Your task to perform on an android device: open app "Microsoft Authenticator" Image 0: 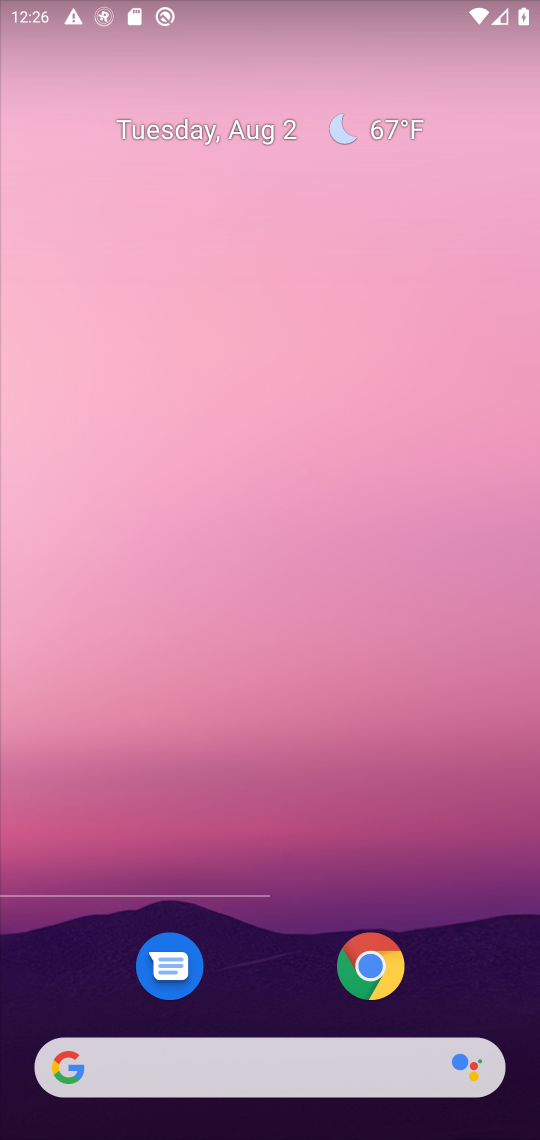
Step 0: press home button
Your task to perform on an android device: open app "Microsoft Authenticator" Image 1: 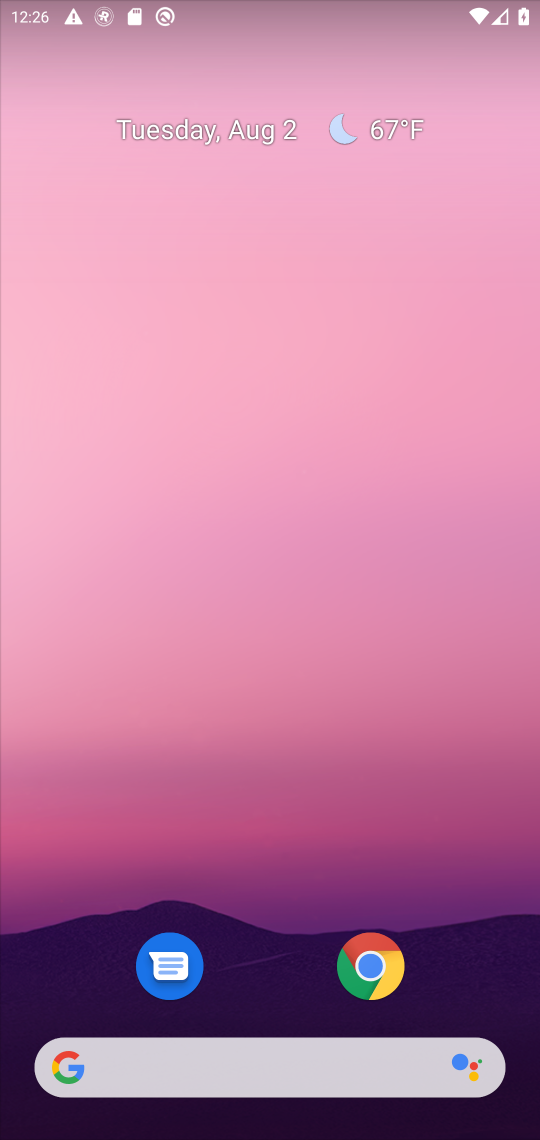
Step 1: drag from (261, 907) to (322, 67)
Your task to perform on an android device: open app "Microsoft Authenticator" Image 2: 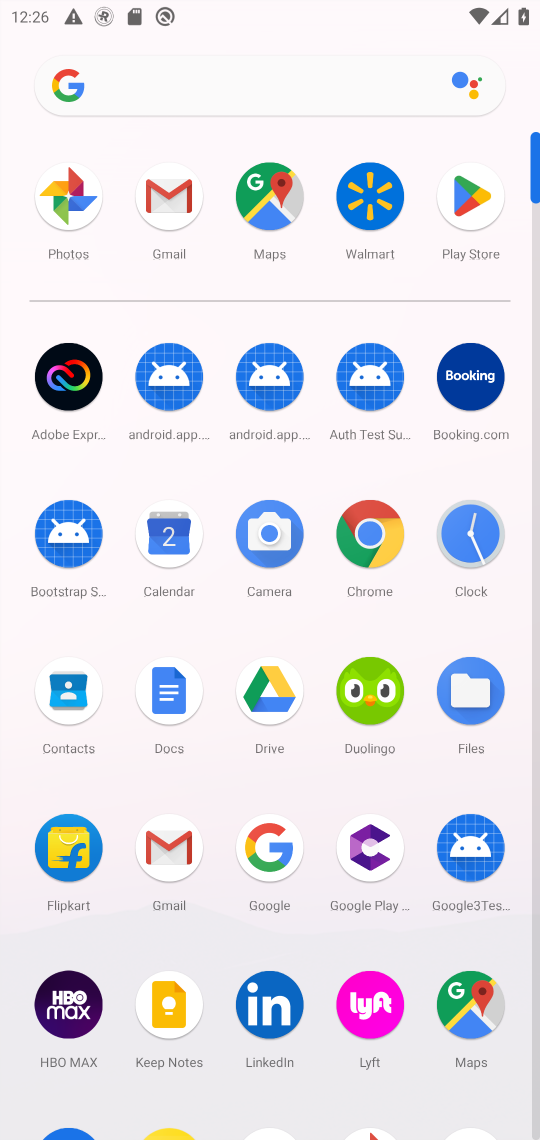
Step 2: click (470, 214)
Your task to perform on an android device: open app "Microsoft Authenticator" Image 3: 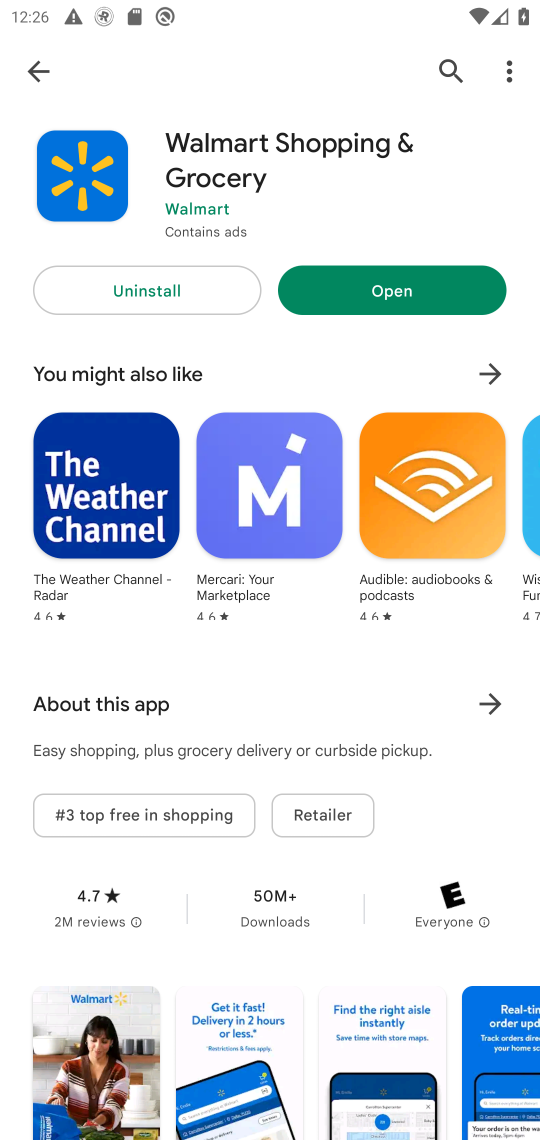
Step 3: click (447, 67)
Your task to perform on an android device: open app "Microsoft Authenticator" Image 4: 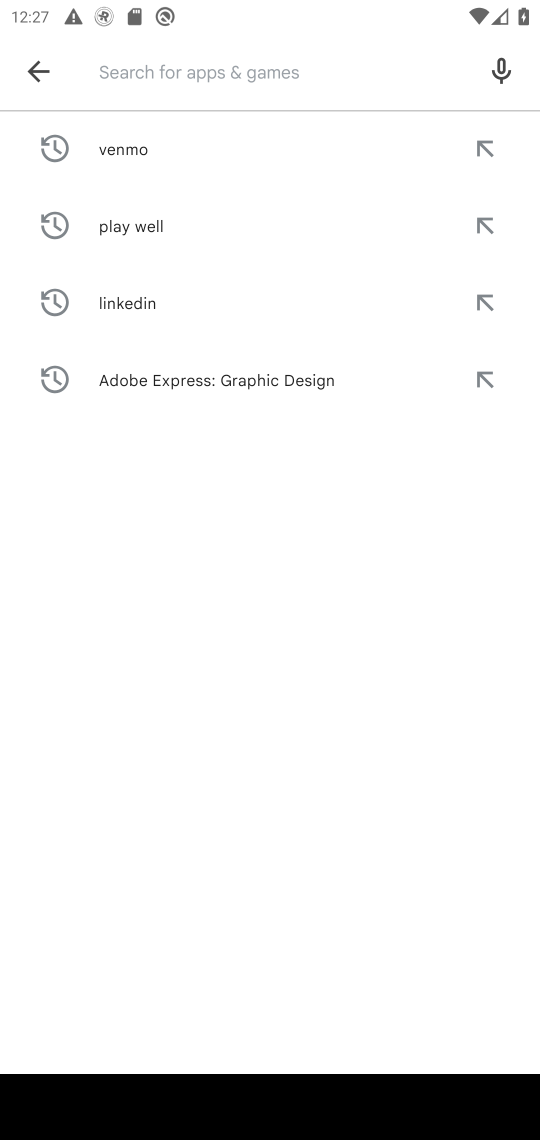
Step 4: type "microsoft authenticator"
Your task to perform on an android device: open app "Microsoft Authenticator" Image 5: 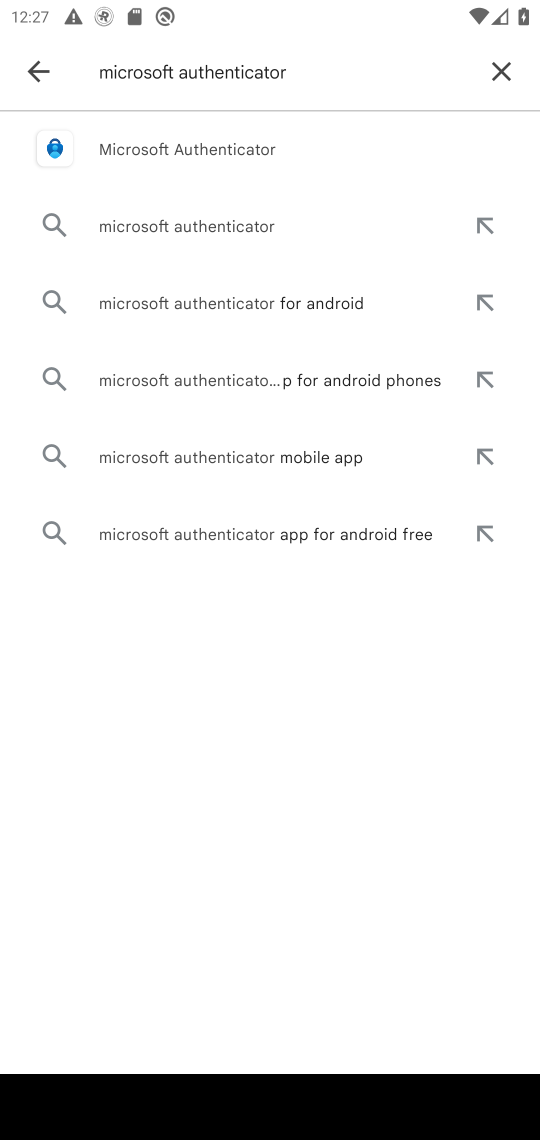
Step 5: click (255, 155)
Your task to perform on an android device: open app "Microsoft Authenticator" Image 6: 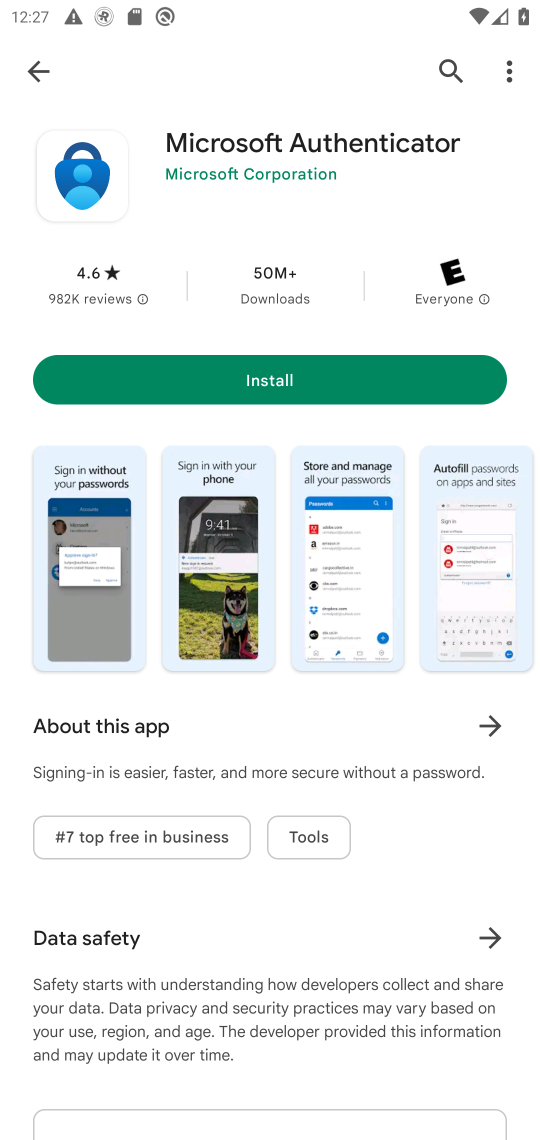
Step 6: task complete